Your task to perform on an android device: turn on airplane mode Image 0: 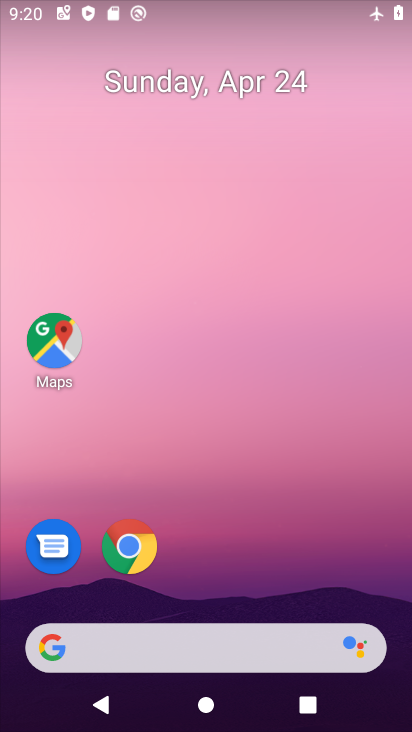
Step 0: drag from (302, 572) to (306, 283)
Your task to perform on an android device: turn on airplane mode Image 1: 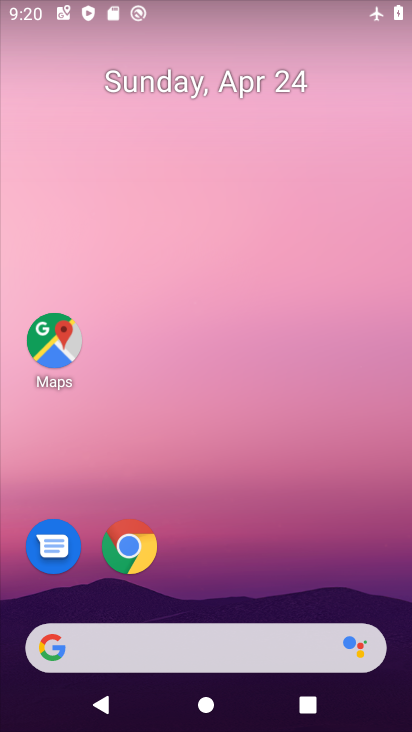
Step 1: drag from (220, 559) to (226, 146)
Your task to perform on an android device: turn on airplane mode Image 2: 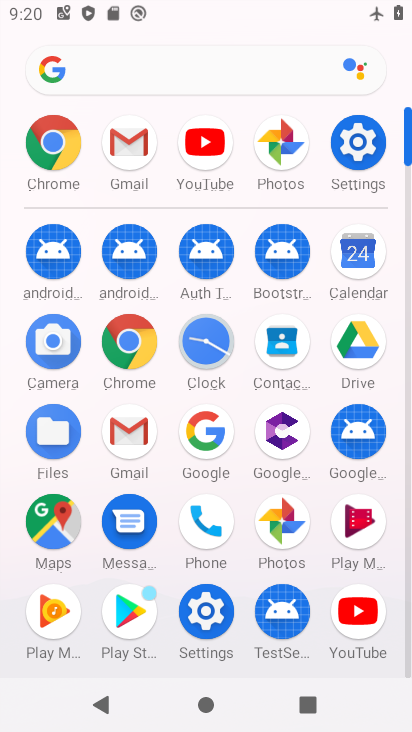
Step 2: click (365, 137)
Your task to perform on an android device: turn on airplane mode Image 3: 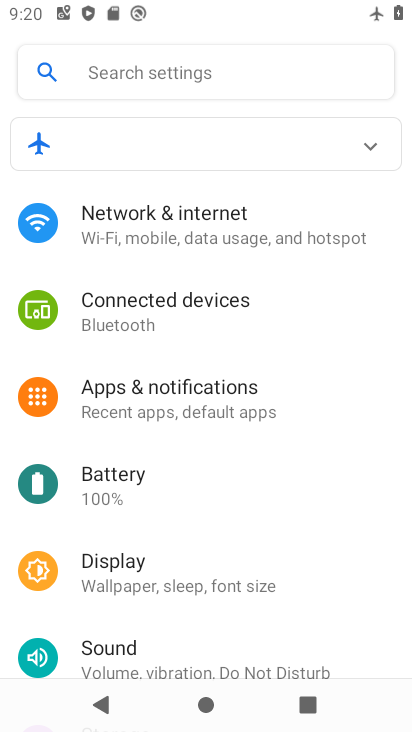
Step 3: click (245, 242)
Your task to perform on an android device: turn on airplane mode Image 4: 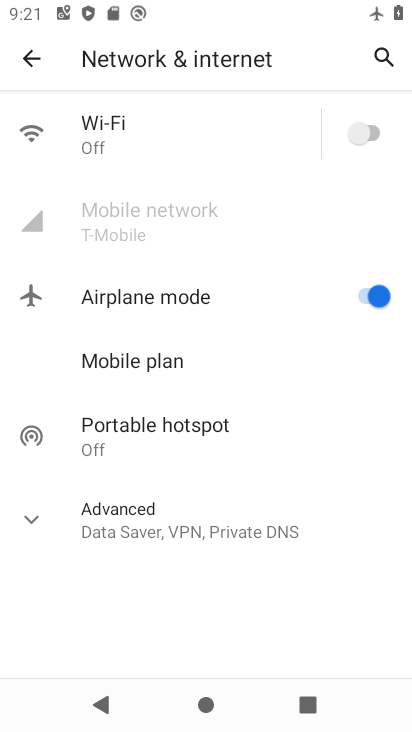
Step 4: task complete